Your task to perform on an android device: open app "Flipkart Online Shopping App" (install if not already installed) Image 0: 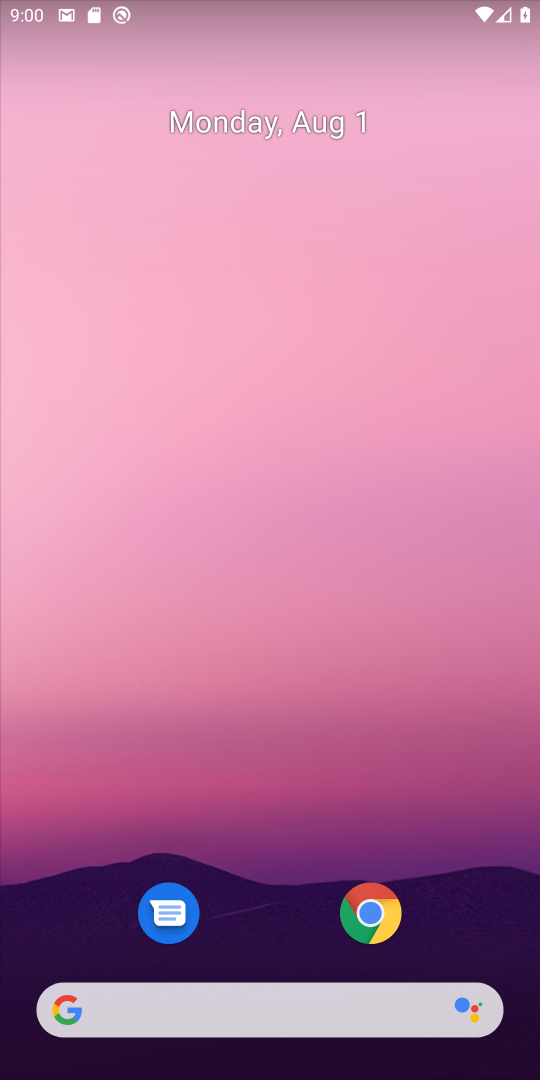
Step 0: drag from (250, 1005) to (302, 248)
Your task to perform on an android device: open app "Flipkart Online Shopping App" (install if not already installed) Image 1: 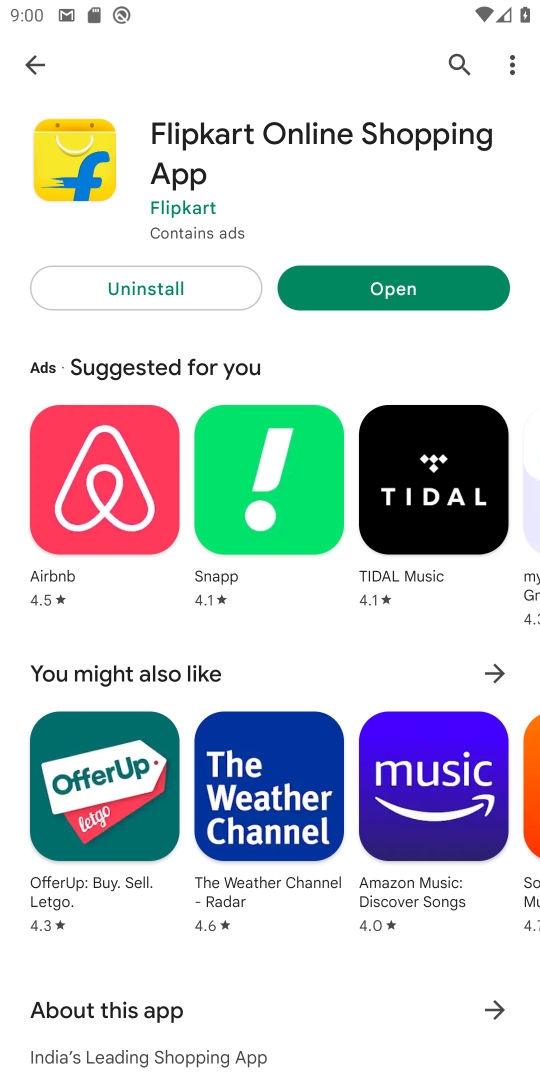
Step 1: click (454, 292)
Your task to perform on an android device: open app "Flipkart Online Shopping App" (install if not already installed) Image 2: 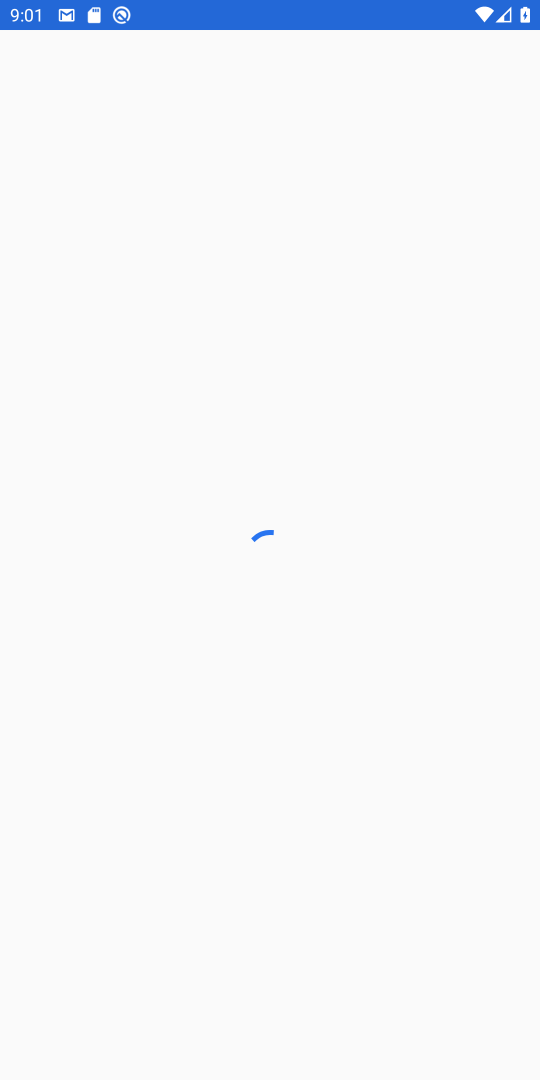
Step 2: task complete